Your task to perform on an android device: allow cookies in the chrome app Image 0: 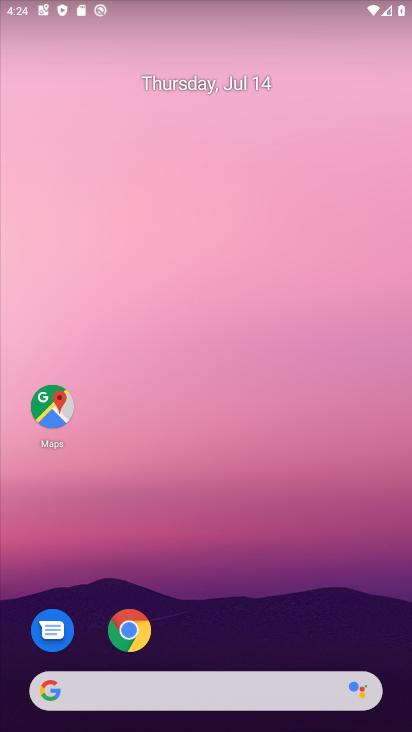
Step 0: click (136, 636)
Your task to perform on an android device: allow cookies in the chrome app Image 1: 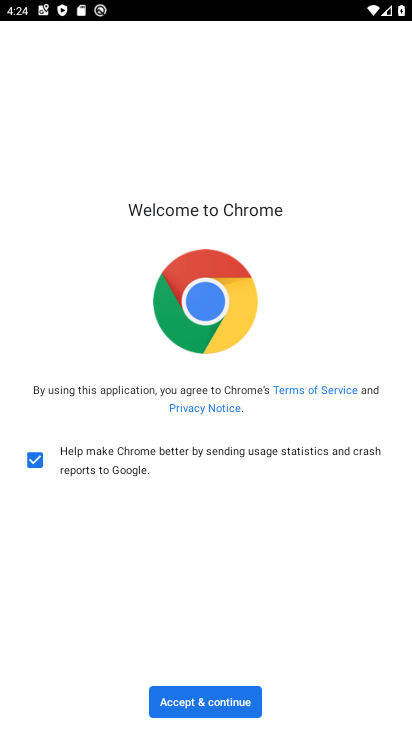
Step 1: click (194, 683)
Your task to perform on an android device: allow cookies in the chrome app Image 2: 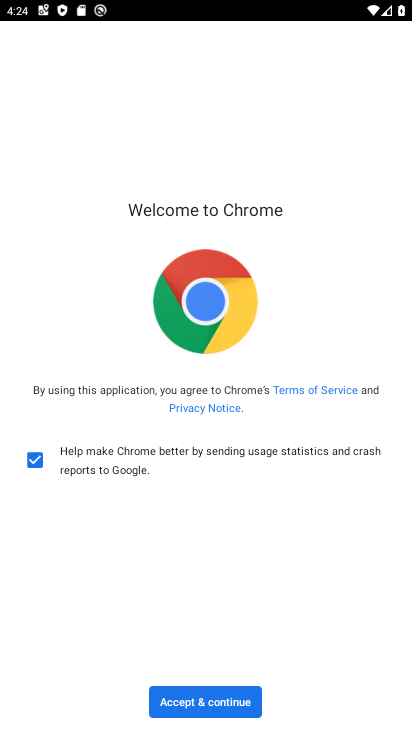
Step 2: click (201, 705)
Your task to perform on an android device: allow cookies in the chrome app Image 3: 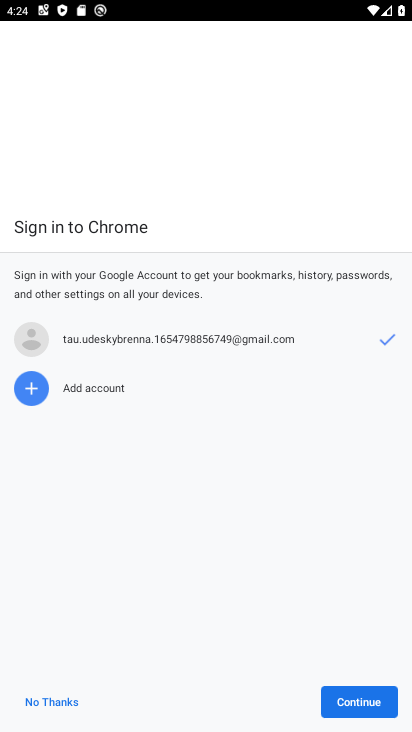
Step 3: click (365, 710)
Your task to perform on an android device: allow cookies in the chrome app Image 4: 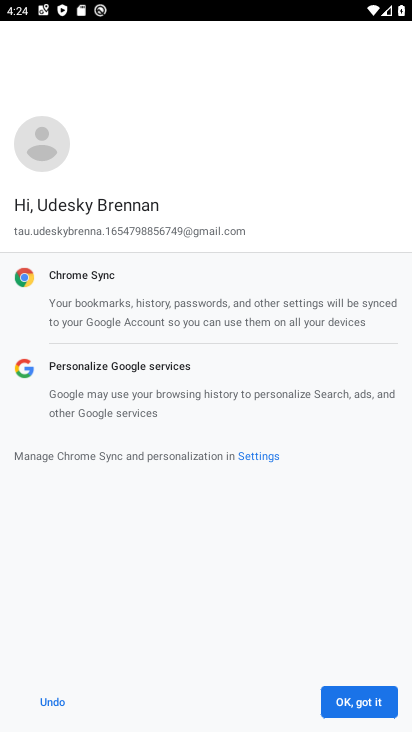
Step 4: click (356, 695)
Your task to perform on an android device: allow cookies in the chrome app Image 5: 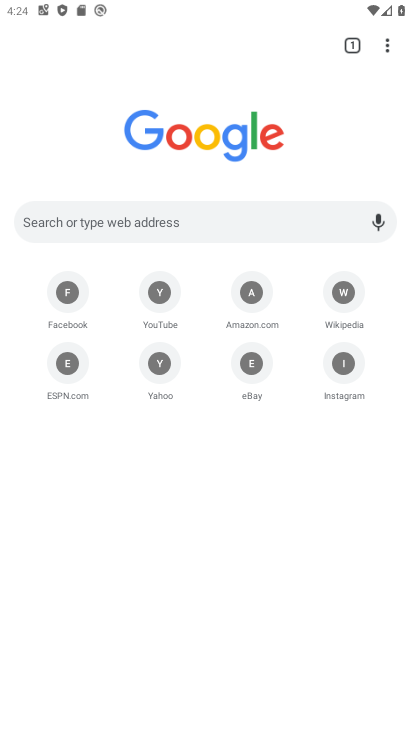
Step 5: drag from (385, 44) to (198, 382)
Your task to perform on an android device: allow cookies in the chrome app Image 6: 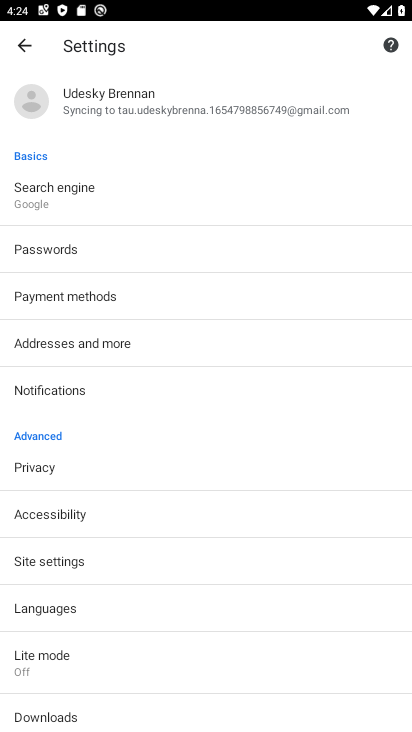
Step 6: click (54, 563)
Your task to perform on an android device: allow cookies in the chrome app Image 7: 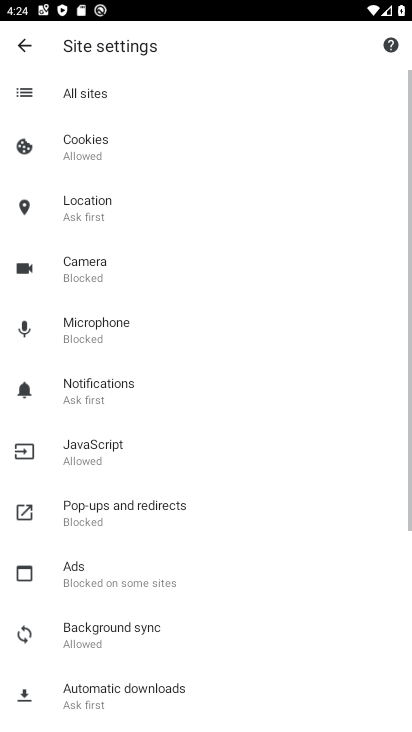
Step 7: click (109, 155)
Your task to perform on an android device: allow cookies in the chrome app Image 8: 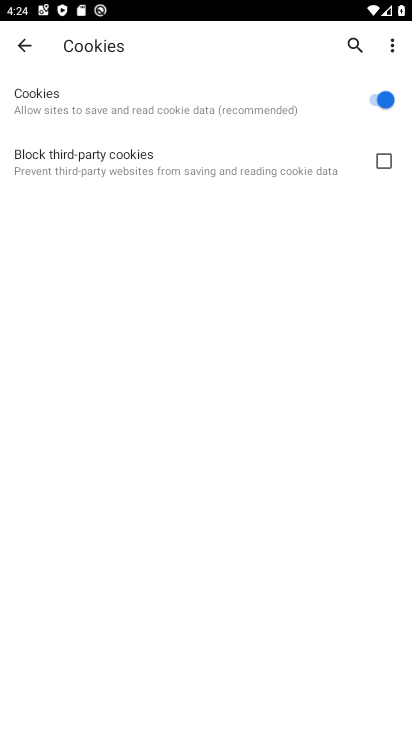
Step 8: task complete